Your task to perform on an android device: Open network settings Image 0: 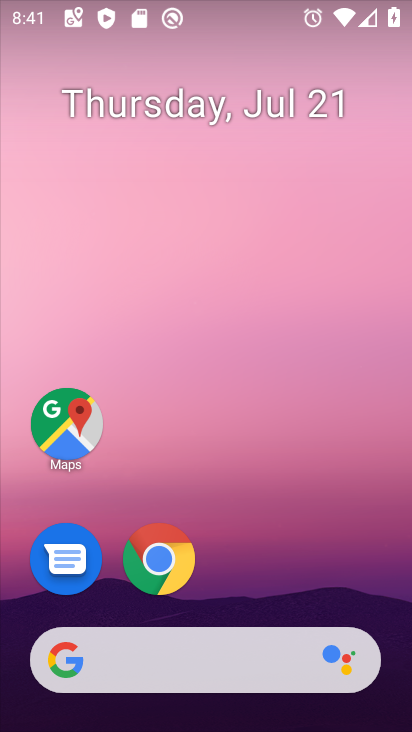
Step 0: drag from (309, 562) to (380, 106)
Your task to perform on an android device: Open network settings Image 1: 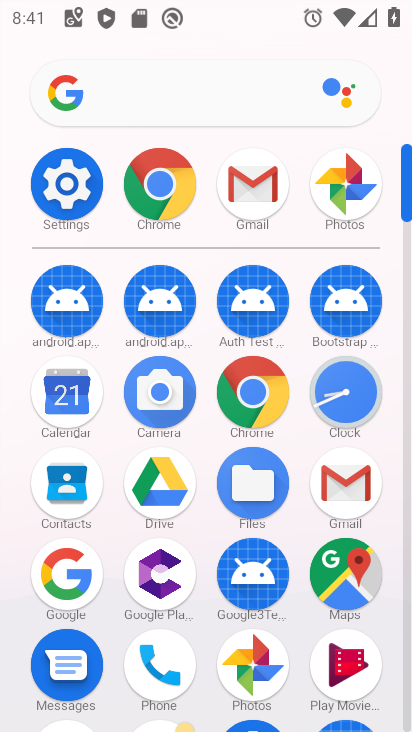
Step 1: click (79, 197)
Your task to perform on an android device: Open network settings Image 2: 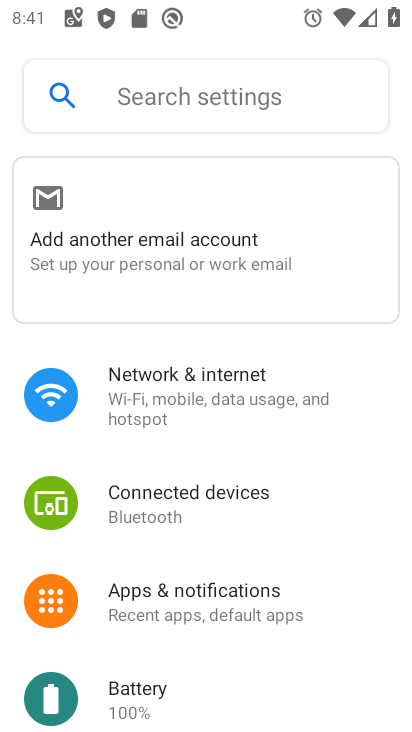
Step 2: drag from (301, 510) to (327, 407)
Your task to perform on an android device: Open network settings Image 3: 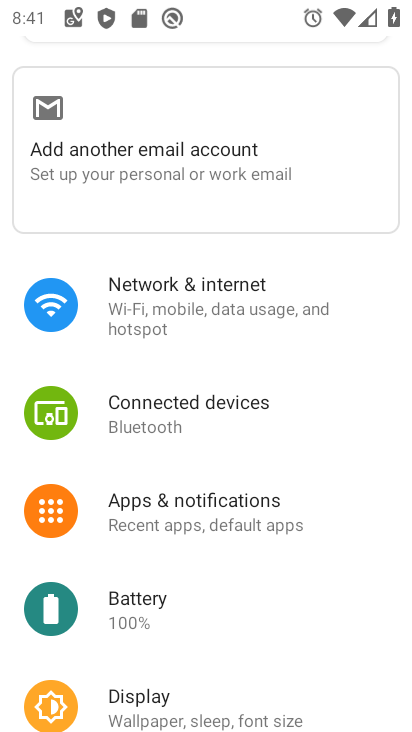
Step 3: drag from (340, 514) to (356, 430)
Your task to perform on an android device: Open network settings Image 4: 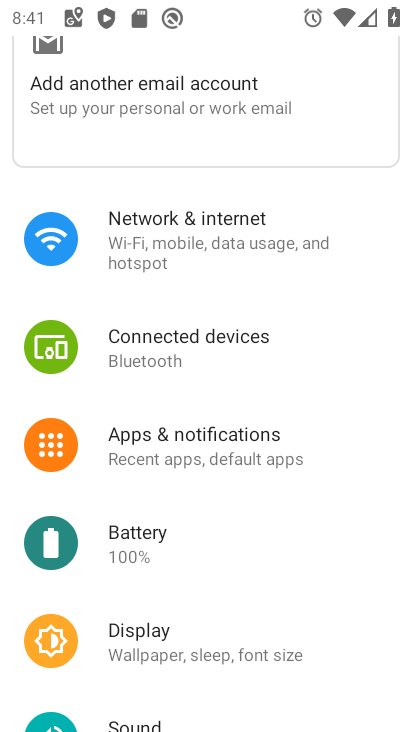
Step 4: drag from (329, 573) to (353, 454)
Your task to perform on an android device: Open network settings Image 5: 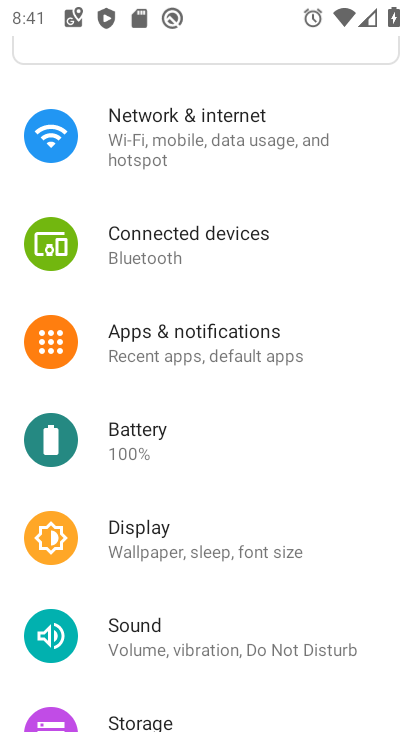
Step 5: drag from (339, 599) to (354, 484)
Your task to perform on an android device: Open network settings Image 6: 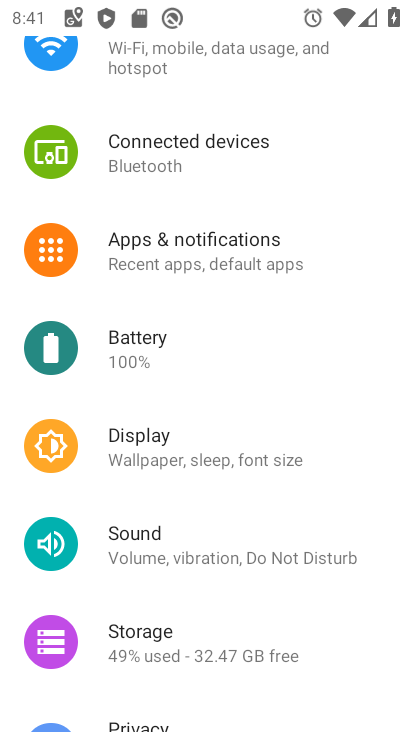
Step 6: drag from (335, 619) to (337, 507)
Your task to perform on an android device: Open network settings Image 7: 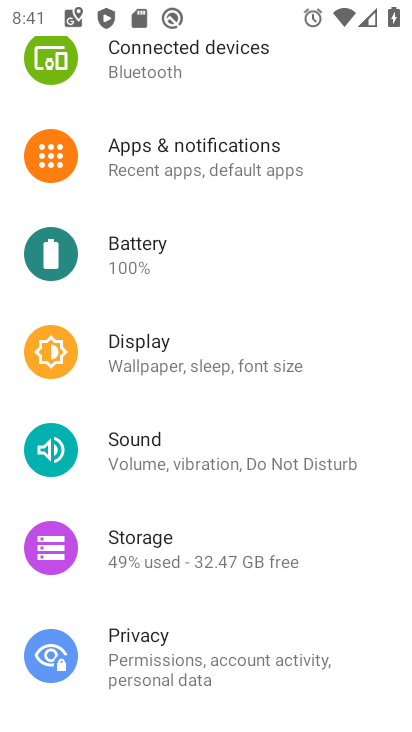
Step 7: drag from (350, 619) to (363, 497)
Your task to perform on an android device: Open network settings Image 8: 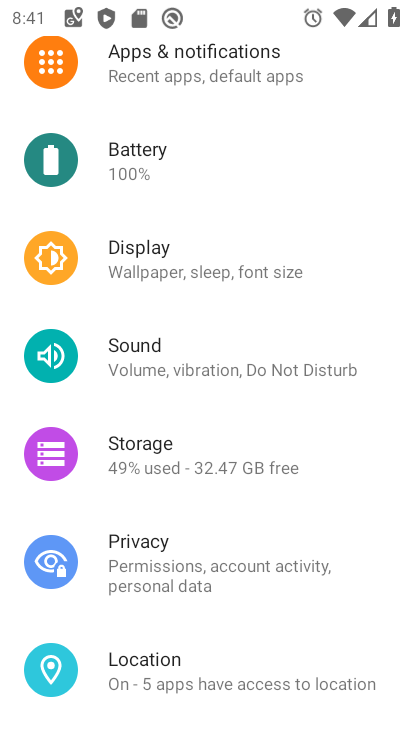
Step 8: drag from (348, 636) to (345, 482)
Your task to perform on an android device: Open network settings Image 9: 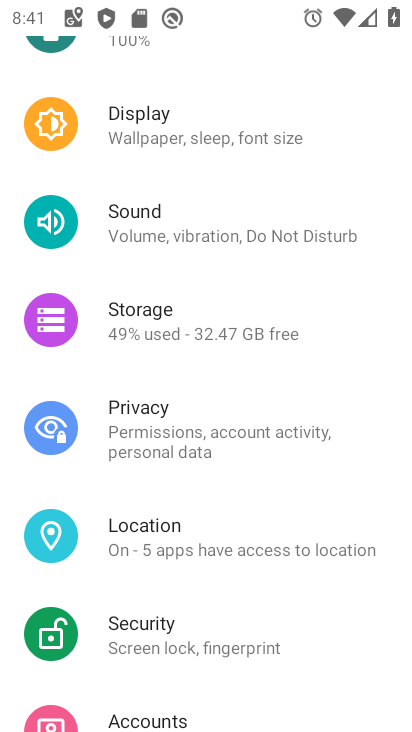
Step 9: drag from (355, 295) to (356, 390)
Your task to perform on an android device: Open network settings Image 10: 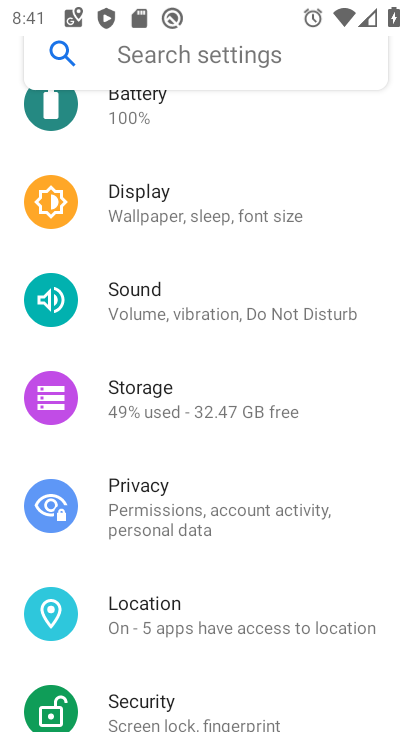
Step 10: drag from (379, 283) to (383, 396)
Your task to perform on an android device: Open network settings Image 11: 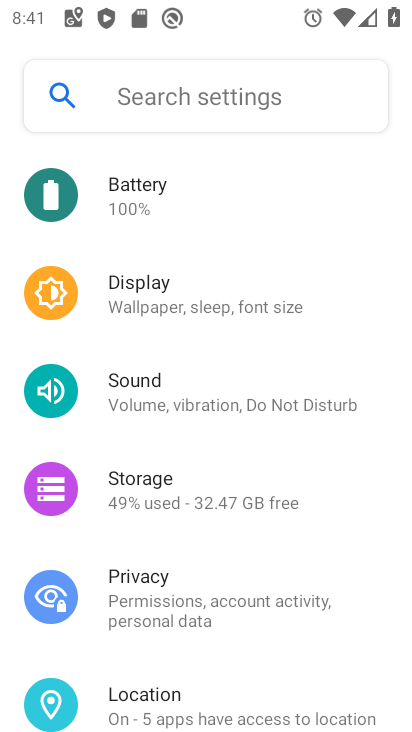
Step 11: drag from (377, 251) to (370, 379)
Your task to perform on an android device: Open network settings Image 12: 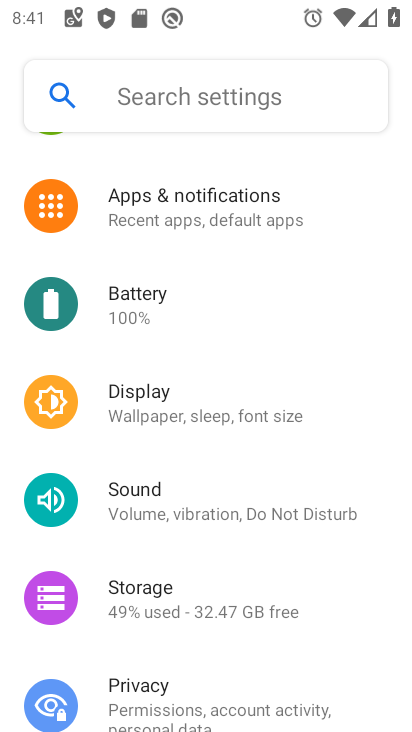
Step 12: drag from (377, 282) to (377, 368)
Your task to perform on an android device: Open network settings Image 13: 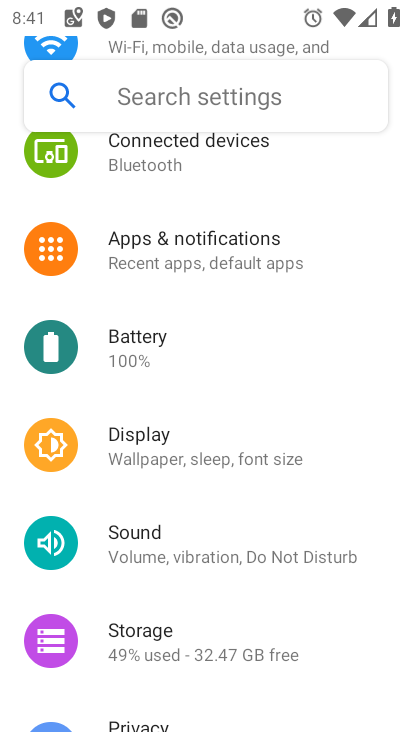
Step 13: drag from (369, 220) to (370, 354)
Your task to perform on an android device: Open network settings Image 14: 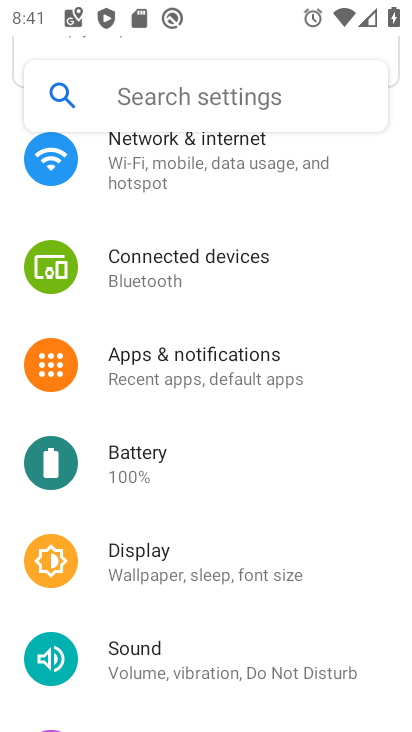
Step 14: drag from (354, 210) to (352, 361)
Your task to perform on an android device: Open network settings Image 15: 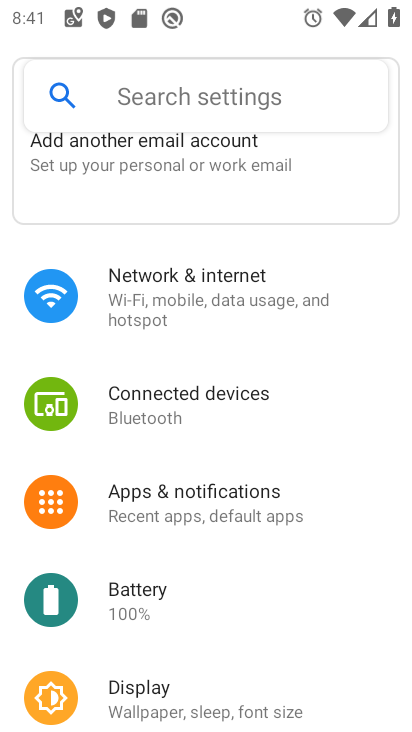
Step 15: drag from (360, 265) to (362, 425)
Your task to perform on an android device: Open network settings Image 16: 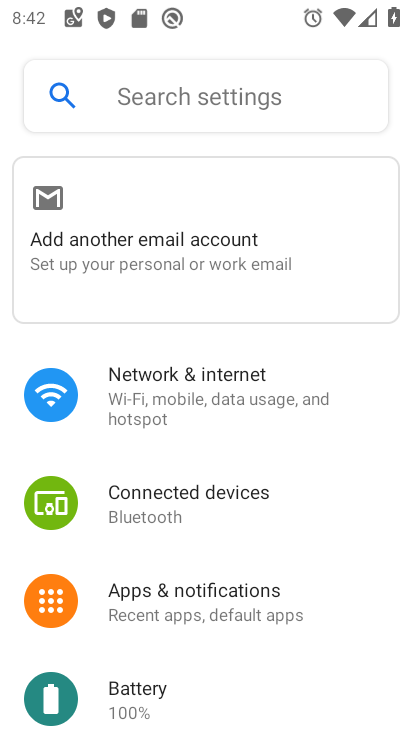
Step 16: click (281, 399)
Your task to perform on an android device: Open network settings Image 17: 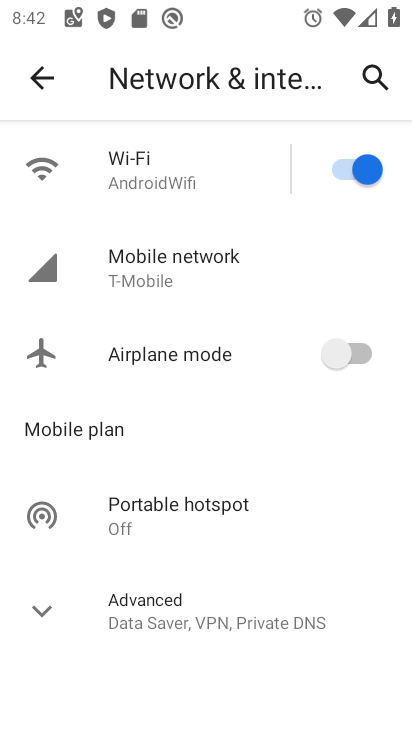
Step 17: task complete